Your task to perform on an android device: open app "Life360: Find Family & Friends" Image 0: 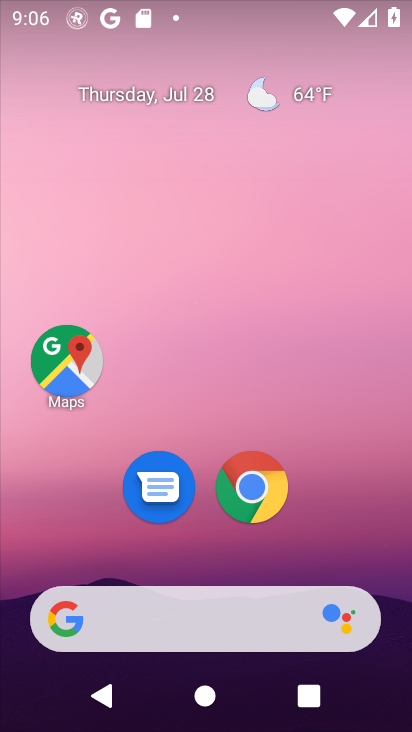
Step 0: drag from (201, 519) to (189, 353)
Your task to perform on an android device: open app "Life360: Find Family & Friends" Image 1: 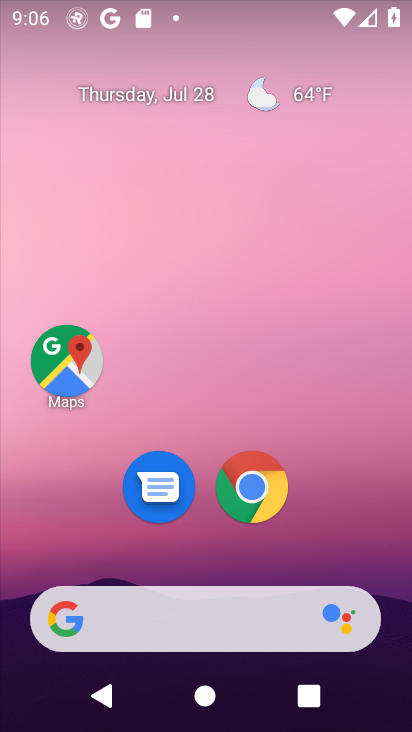
Step 1: drag from (216, 614) to (216, 52)
Your task to perform on an android device: open app "Life360: Find Family & Friends" Image 2: 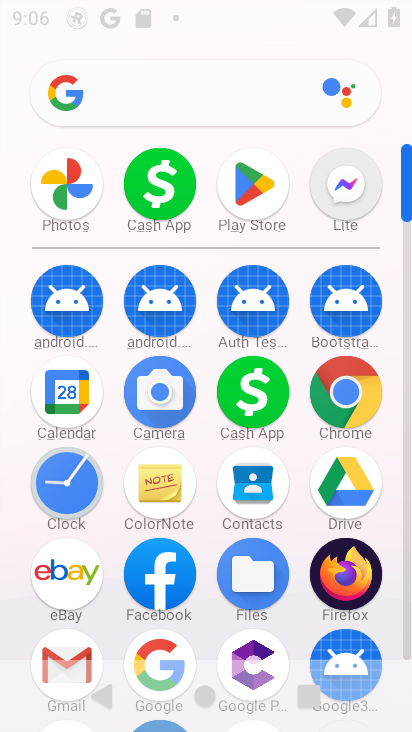
Step 2: drag from (282, 552) to (273, 219)
Your task to perform on an android device: open app "Life360: Find Family & Friends" Image 3: 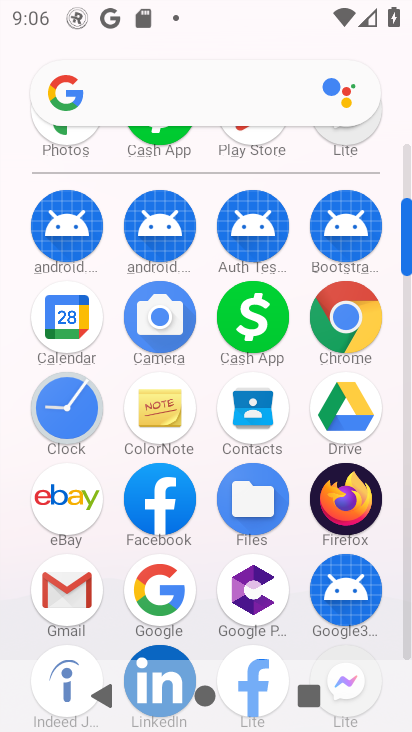
Step 3: drag from (258, 616) to (255, 267)
Your task to perform on an android device: open app "Life360: Find Family & Friends" Image 4: 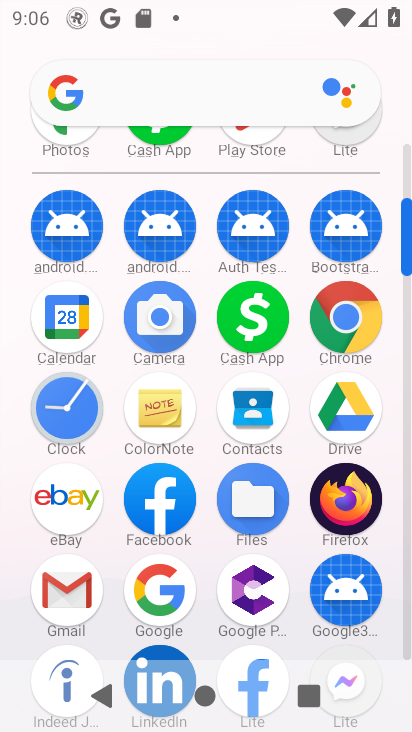
Step 4: drag from (207, 368) to (207, 296)
Your task to perform on an android device: open app "Life360: Find Family & Friends" Image 5: 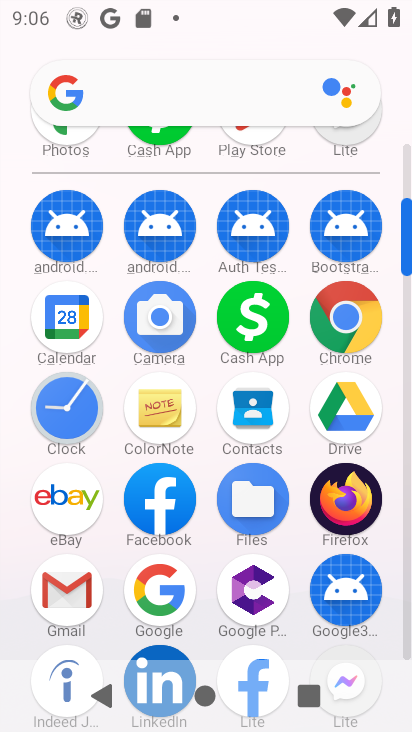
Step 5: click (212, 325)
Your task to perform on an android device: open app "Life360: Find Family & Friends" Image 6: 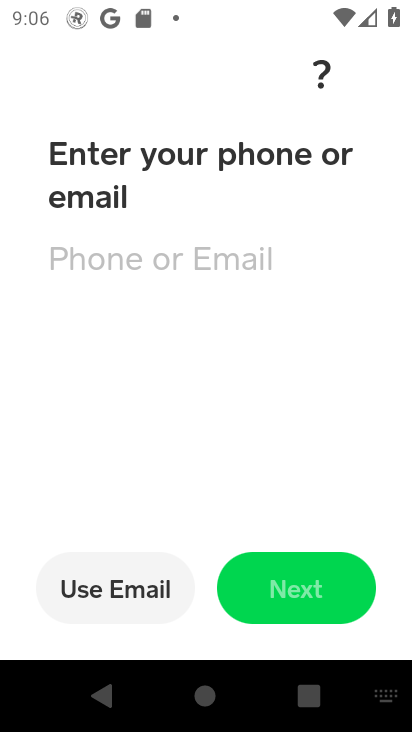
Step 6: press back button
Your task to perform on an android device: open app "Life360: Find Family & Friends" Image 7: 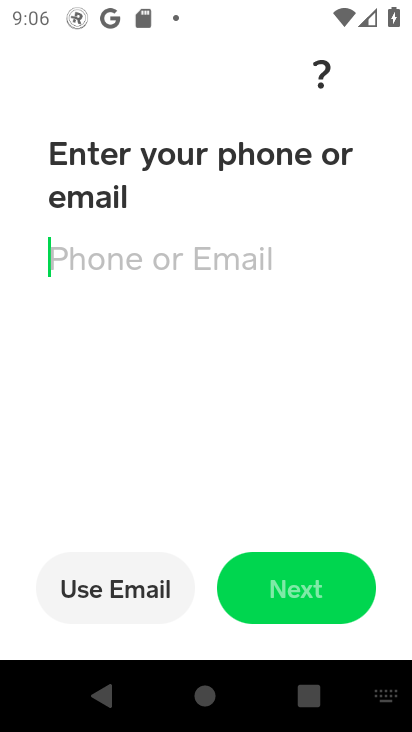
Step 7: press back button
Your task to perform on an android device: open app "Life360: Find Family & Friends" Image 8: 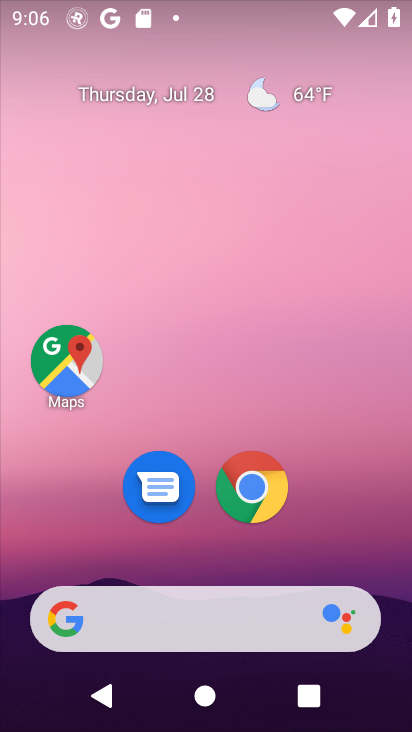
Step 8: drag from (209, 613) to (153, 214)
Your task to perform on an android device: open app "Life360: Find Family & Friends" Image 9: 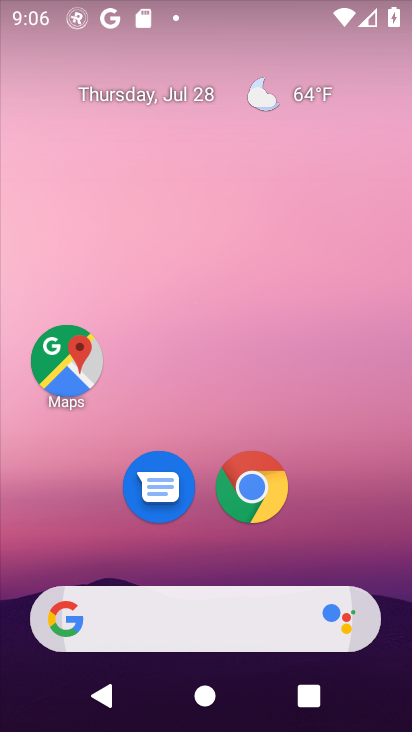
Step 9: drag from (188, 574) to (185, 214)
Your task to perform on an android device: open app "Life360: Find Family & Friends" Image 10: 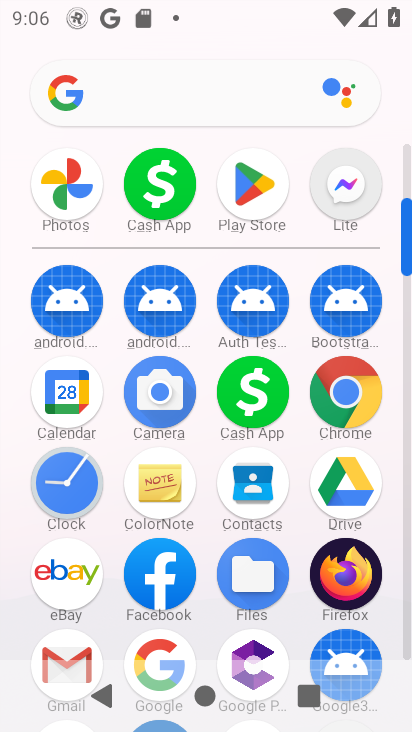
Step 10: drag from (182, 468) to (182, 234)
Your task to perform on an android device: open app "Life360: Find Family & Friends" Image 11: 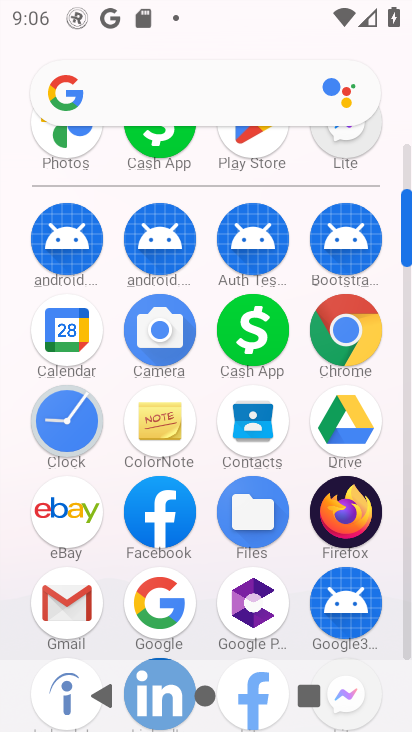
Step 11: drag from (286, 227) to (285, 540)
Your task to perform on an android device: open app "Life360: Find Family & Friends" Image 12: 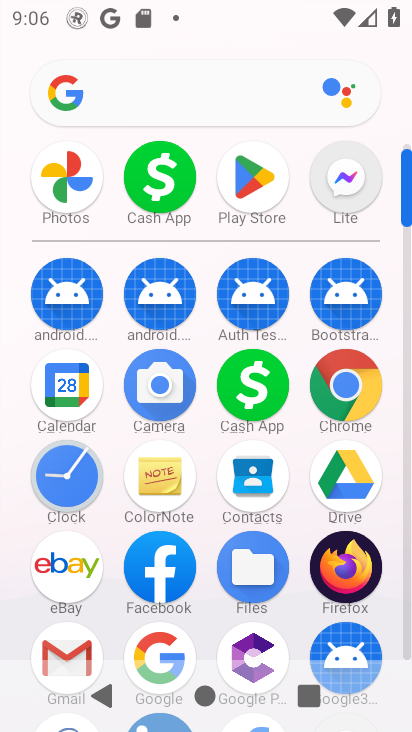
Step 12: click (252, 188)
Your task to perform on an android device: open app "Life360: Find Family & Friends" Image 13: 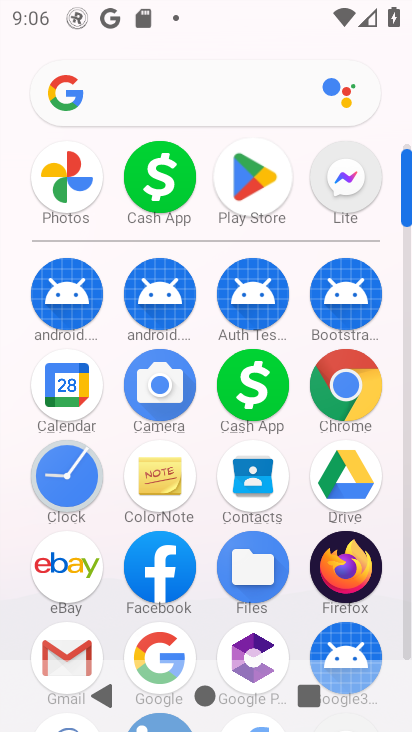
Step 13: click (252, 188)
Your task to perform on an android device: open app "Life360: Find Family & Friends" Image 14: 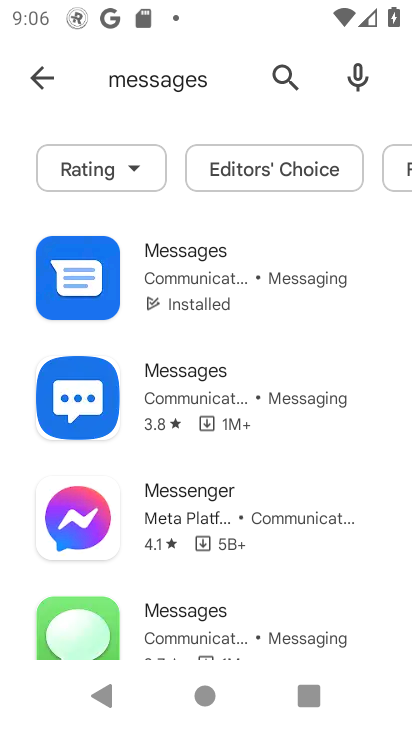
Step 14: click (45, 72)
Your task to perform on an android device: open app "Life360: Find Family & Friends" Image 15: 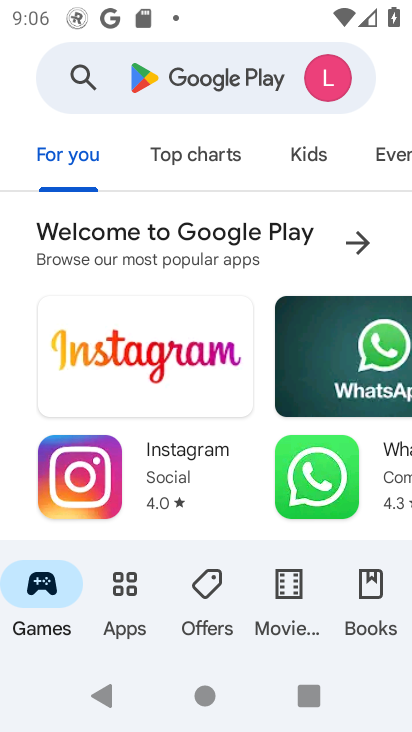
Step 15: click (150, 65)
Your task to perform on an android device: open app "Life360: Find Family & Friends" Image 16: 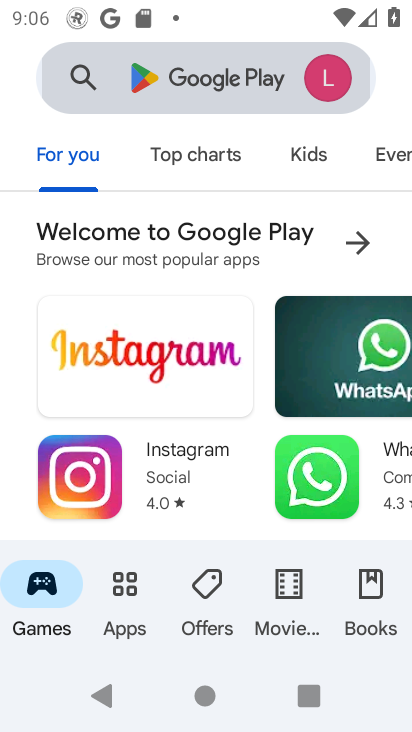
Step 16: click (149, 72)
Your task to perform on an android device: open app "Life360: Find Family & Friends" Image 17: 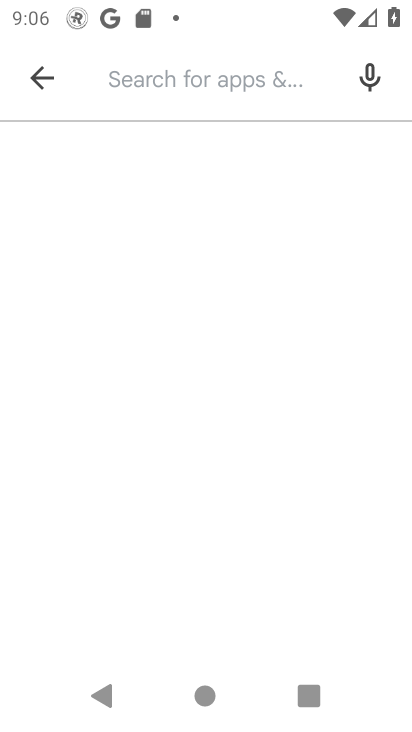
Step 17: click (146, 69)
Your task to perform on an android device: open app "Life360: Find Family & Friends" Image 18: 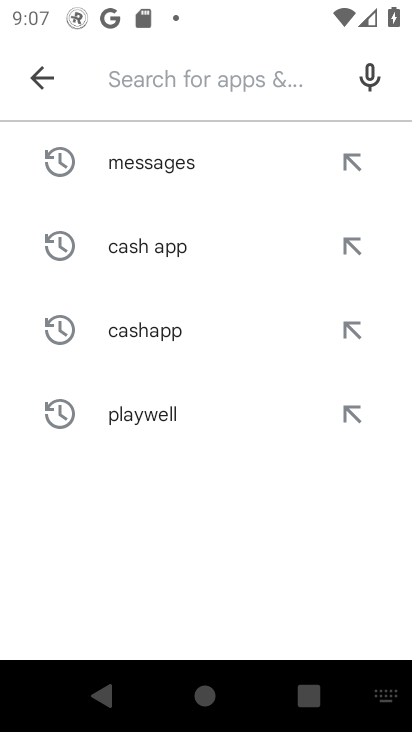
Step 18: type "life360: Find Family & Friends"
Your task to perform on an android device: open app "Life360: Find Family & Friends" Image 19: 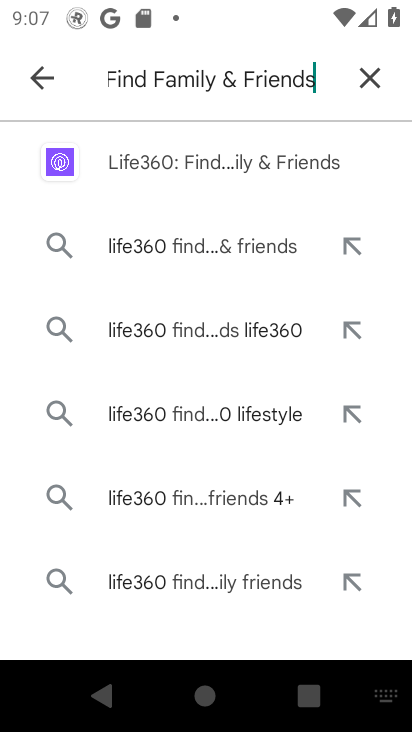
Step 19: click (240, 163)
Your task to perform on an android device: open app "Life360: Find Family & Friends" Image 20: 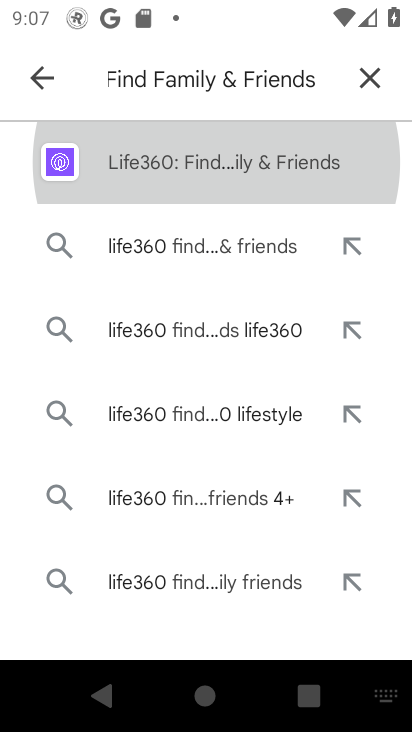
Step 20: click (239, 163)
Your task to perform on an android device: open app "Life360: Find Family & Friends" Image 21: 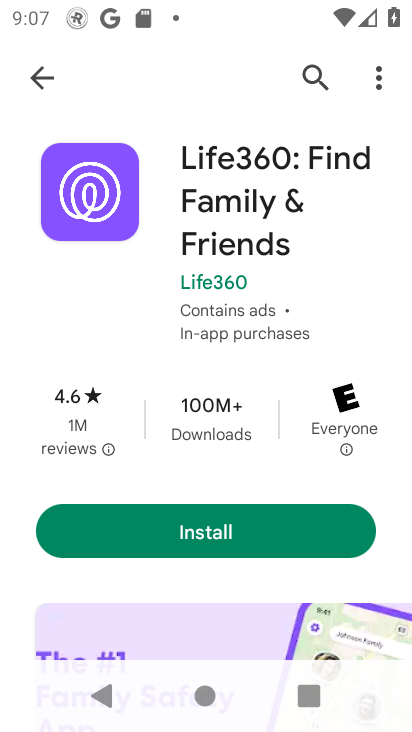
Step 21: click (255, 520)
Your task to perform on an android device: open app "Life360: Find Family & Friends" Image 22: 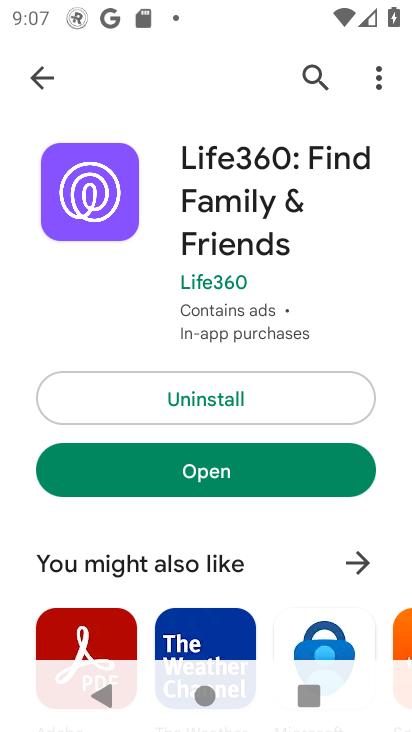
Step 22: click (235, 468)
Your task to perform on an android device: open app "Life360: Find Family & Friends" Image 23: 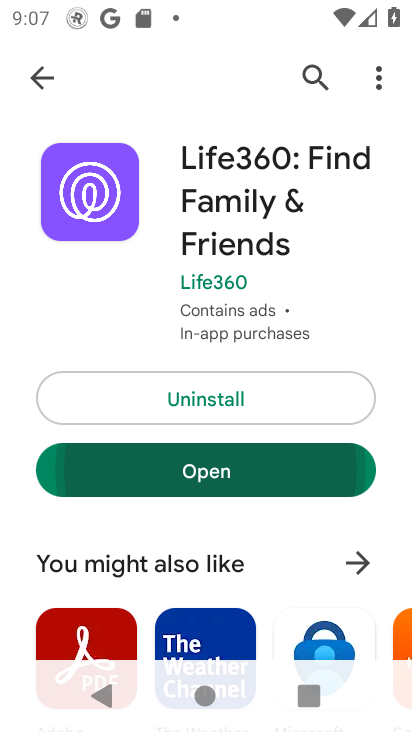
Step 23: click (236, 467)
Your task to perform on an android device: open app "Life360: Find Family & Friends" Image 24: 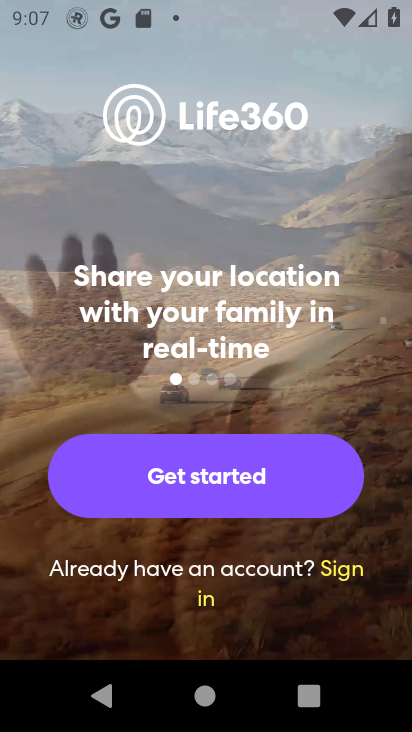
Step 24: click (279, 173)
Your task to perform on an android device: open app "Life360: Find Family & Friends" Image 25: 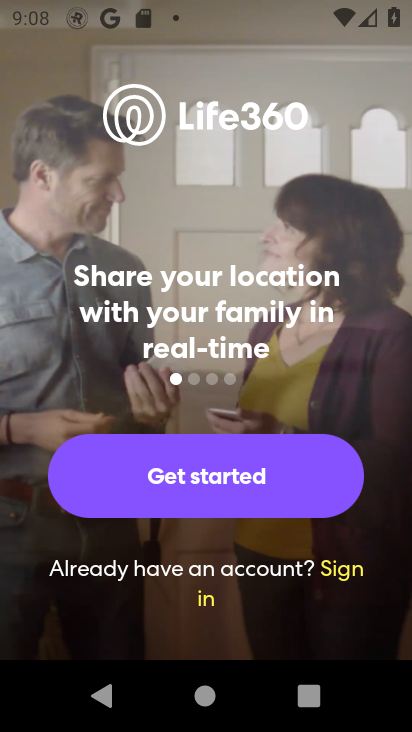
Step 25: click (288, 217)
Your task to perform on an android device: open app "Life360: Find Family & Friends" Image 26: 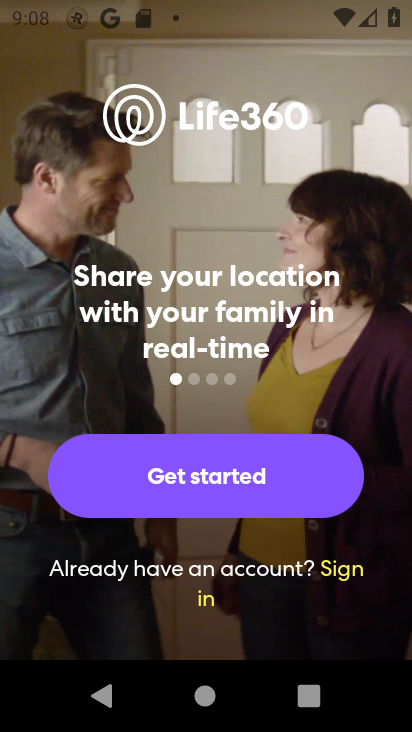
Step 26: click (287, 218)
Your task to perform on an android device: open app "Life360: Find Family & Friends" Image 27: 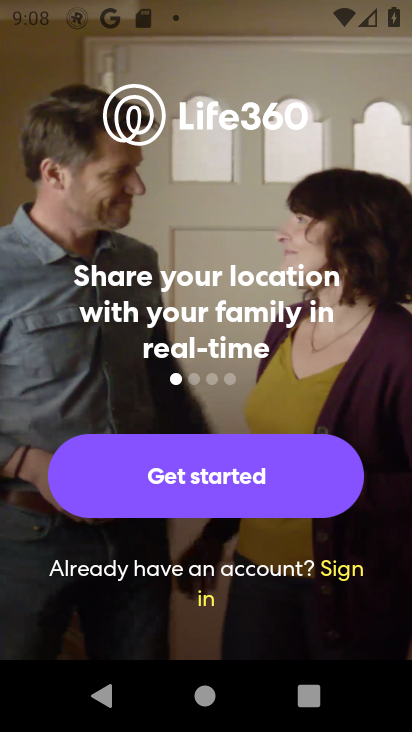
Step 27: click (287, 218)
Your task to perform on an android device: open app "Life360: Find Family & Friends" Image 28: 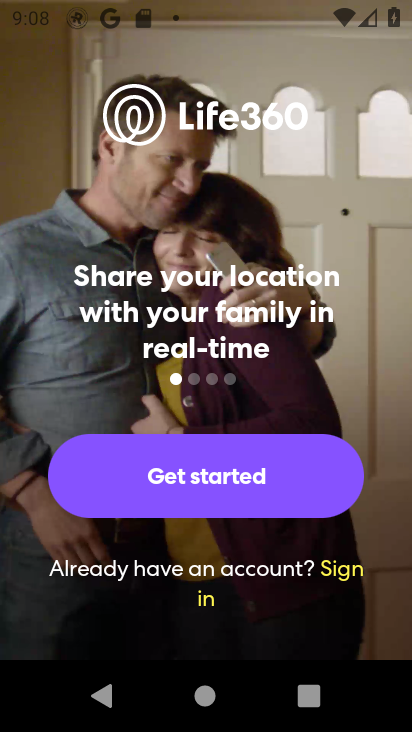
Step 28: click (314, 262)
Your task to perform on an android device: open app "Life360: Find Family & Friends" Image 29: 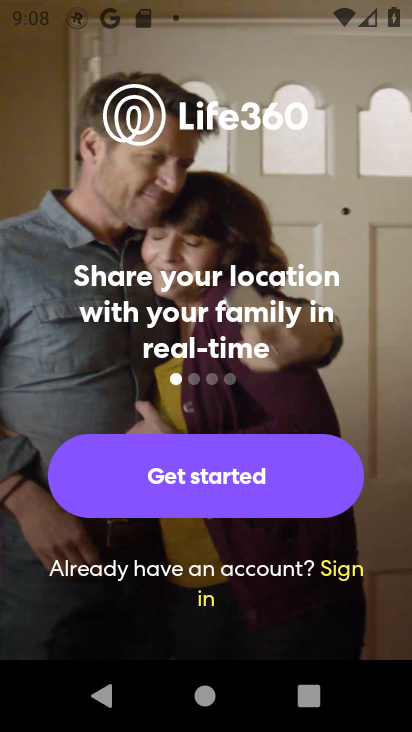
Step 29: click (333, 219)
Your task to perform on an android device: open app "Life360: Find Family & Friends" Image 30: 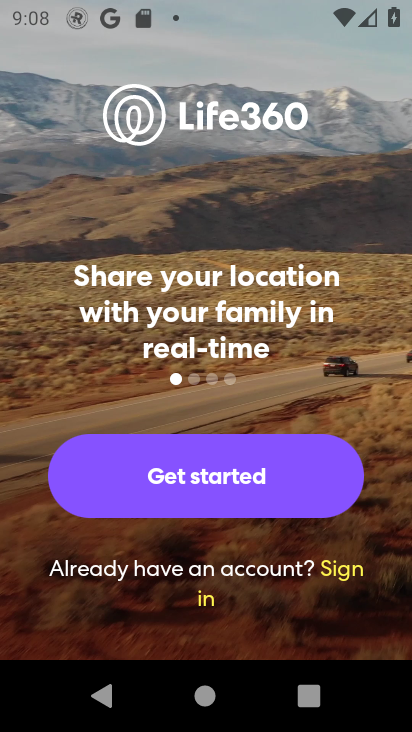
Step 30: click (142, 220)
Your task to perform on an android device: open app "Life360: Find Family & Friends" Image 31: 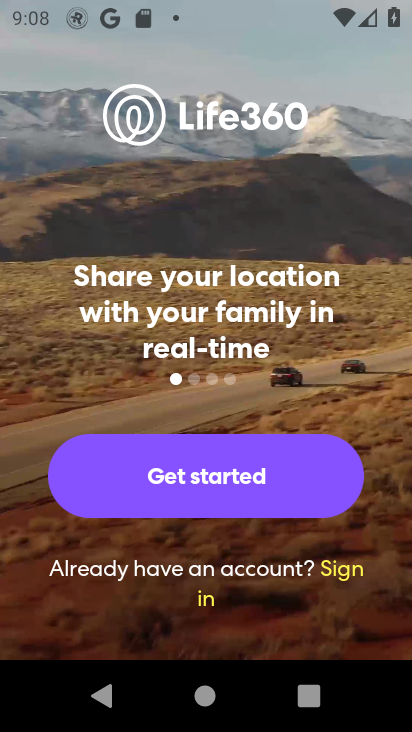
Step 31: click (135, 202)
Your task to perform on an android device: open app "Life360: Find Family & Friends" Image 32: 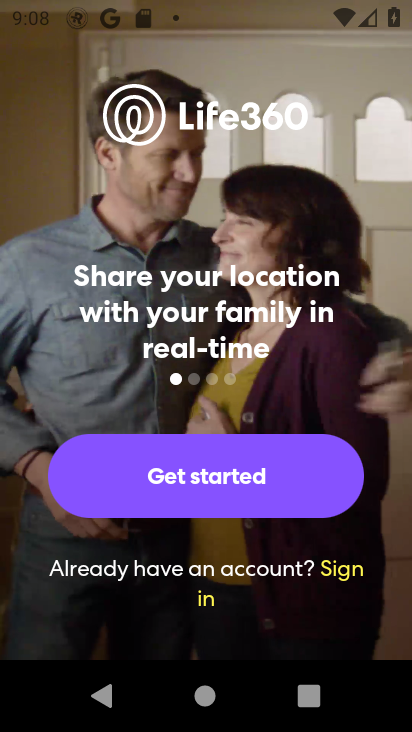
Step 32: click (209, 365)
Your task to perform on an android device: open app "Life360: Find Family & Friends" Image 33: 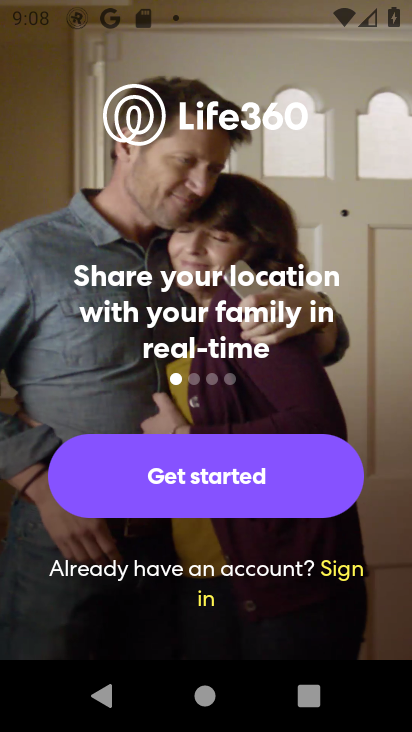
Step 33: click (215, 353)
Your task to perform on an android device: open app "Life360: Find Family & Friends" Image 34: 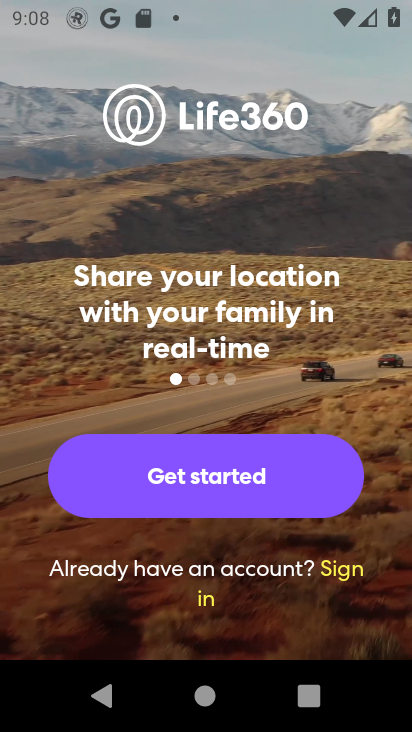
Step 34: click (224, 343)
Your task to perform on an android device: open app "Life360: Find Family & Friends" Image 35: 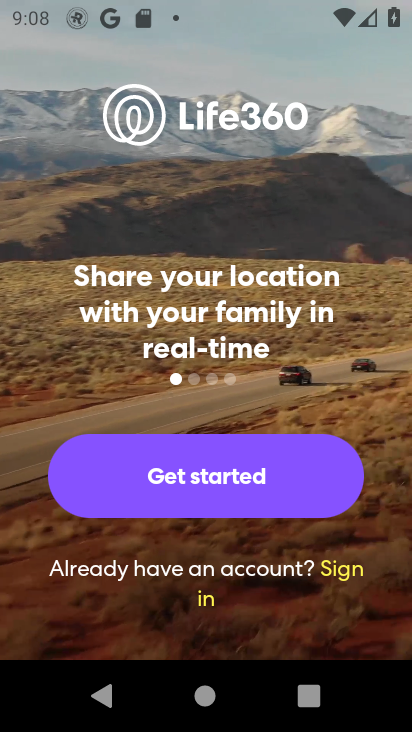
Step 35: task complete